Your task to perform on an android device: turn pop-ups off in chrome Image 0: 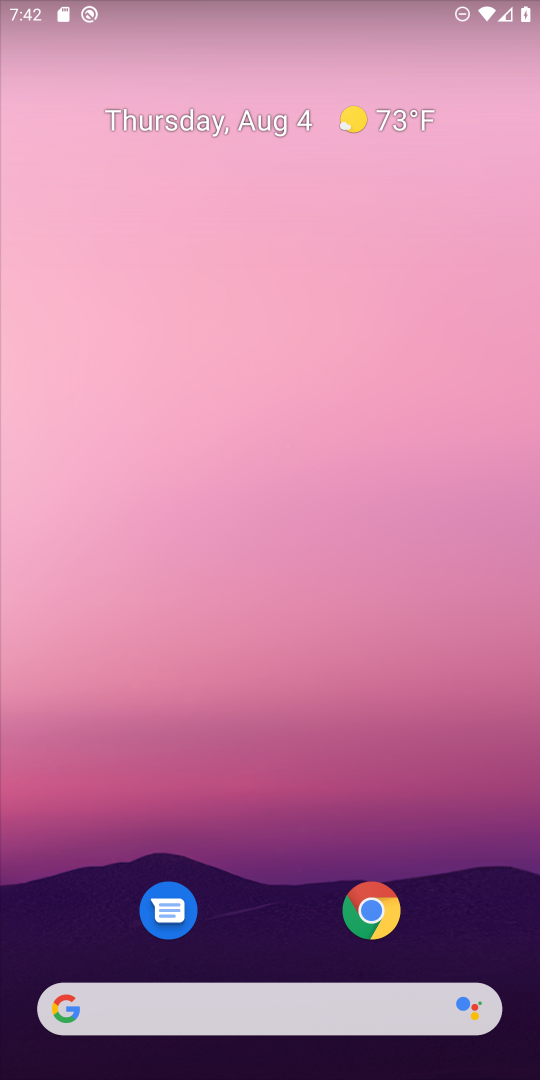
Step 0: drag from (268, 914) to (281, 238)
Your task to perform on an android device: turn pop-ups off in chrome Image 1: 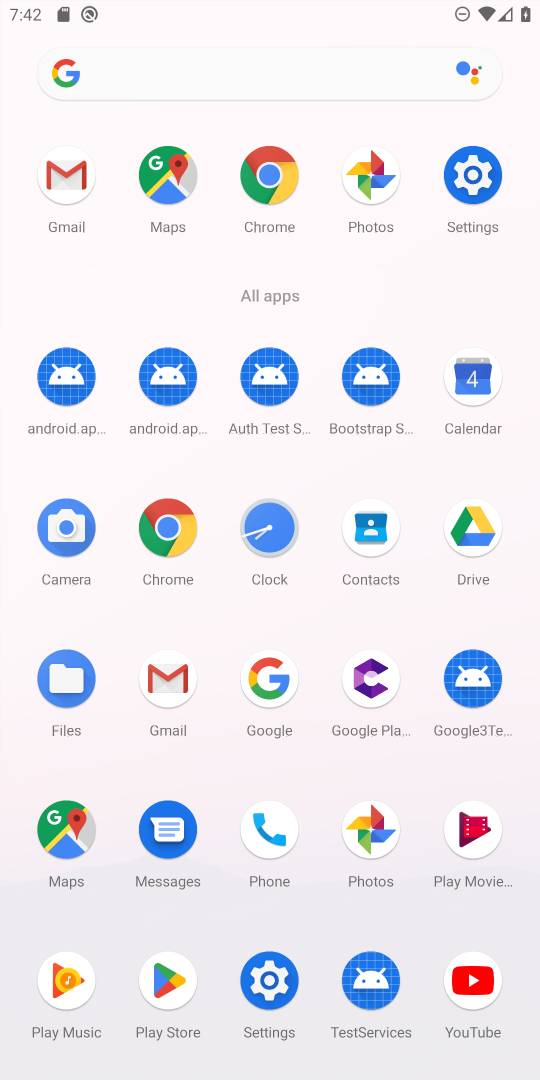
Step 1: click (177, 530)
Your task to perform on an android device: turn pop-ups off in chrome Image 2: 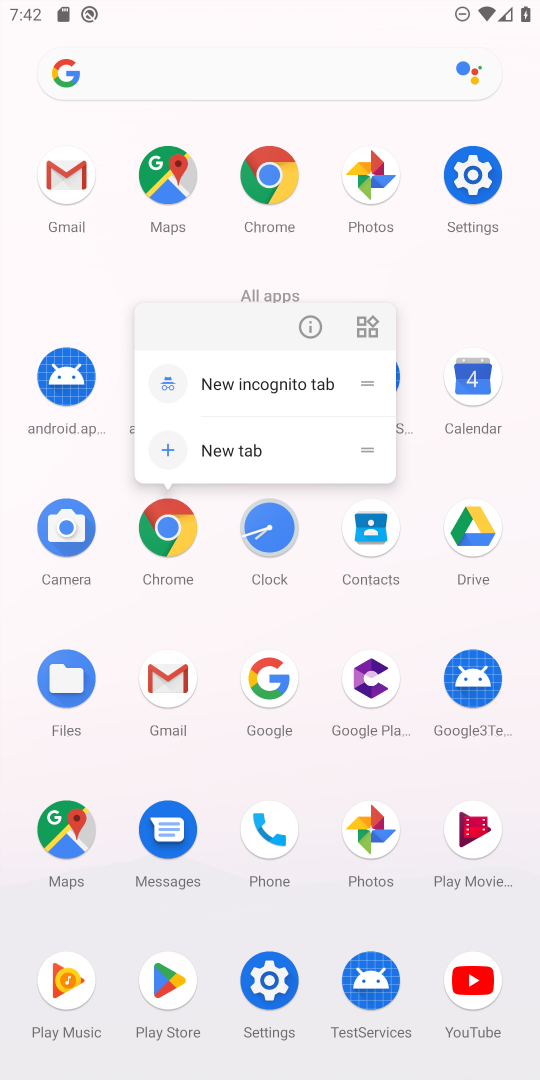
Step 2: click (177, 530)
Your task to perform on an android device: turn pop-ups off in chrome Image 3: 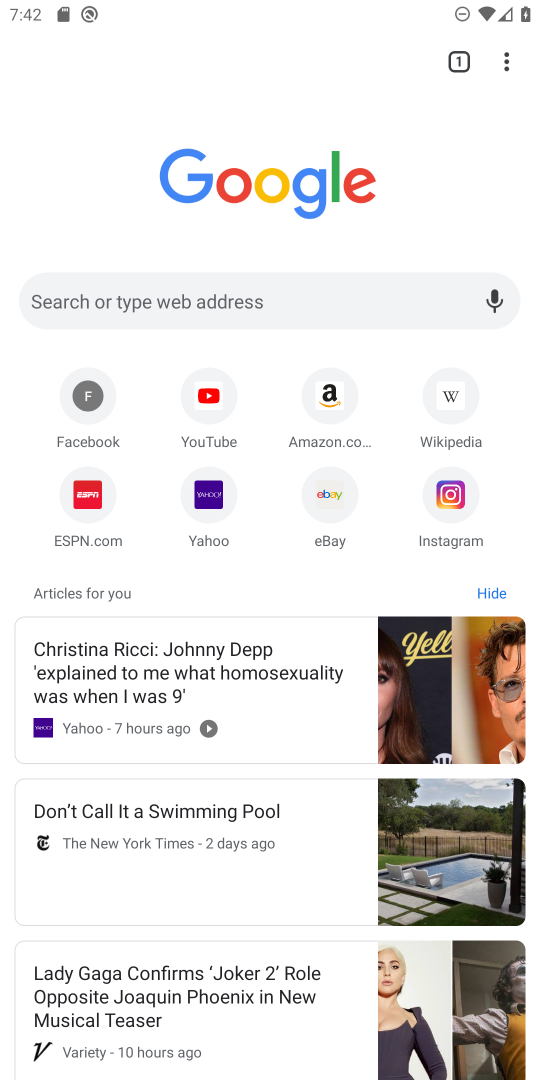
Step 3: drag from (513, 52) to (342, 504)
Your task to perform on an android device: turn pop-ups off in chrome Image 4: 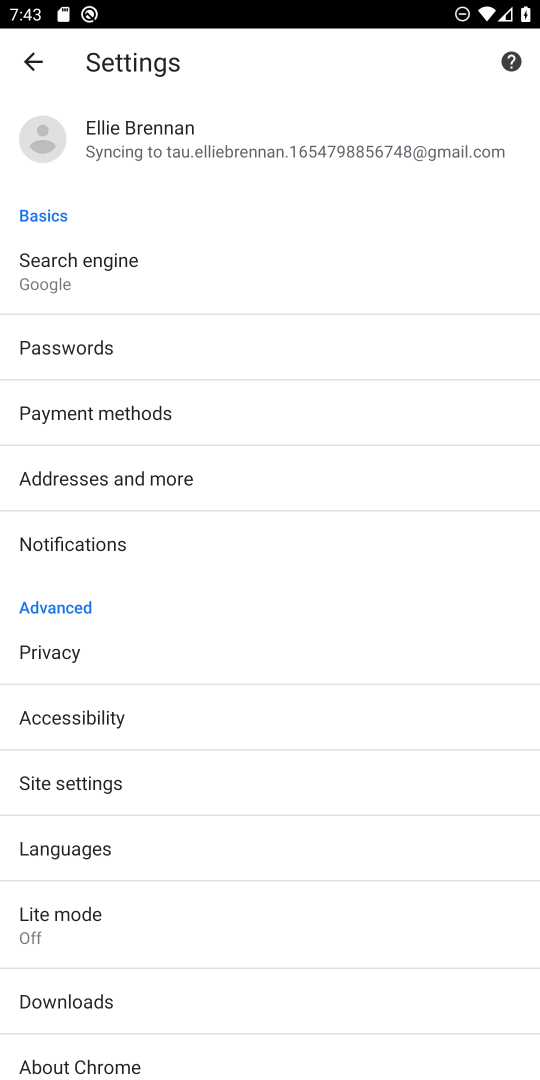
Step 4: click (138, 796)
Your task to perform on an android device: turn pop-ups off in chrome Image 5: 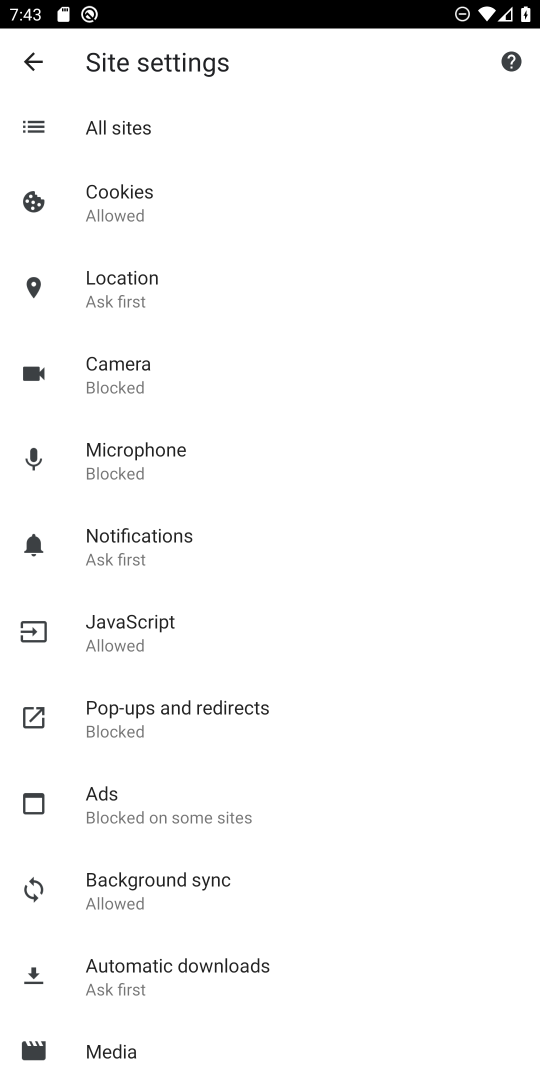
Step 5: click (179, 745)
Your task to perform on an android device: turn pop-ups off in chrome Image 6: 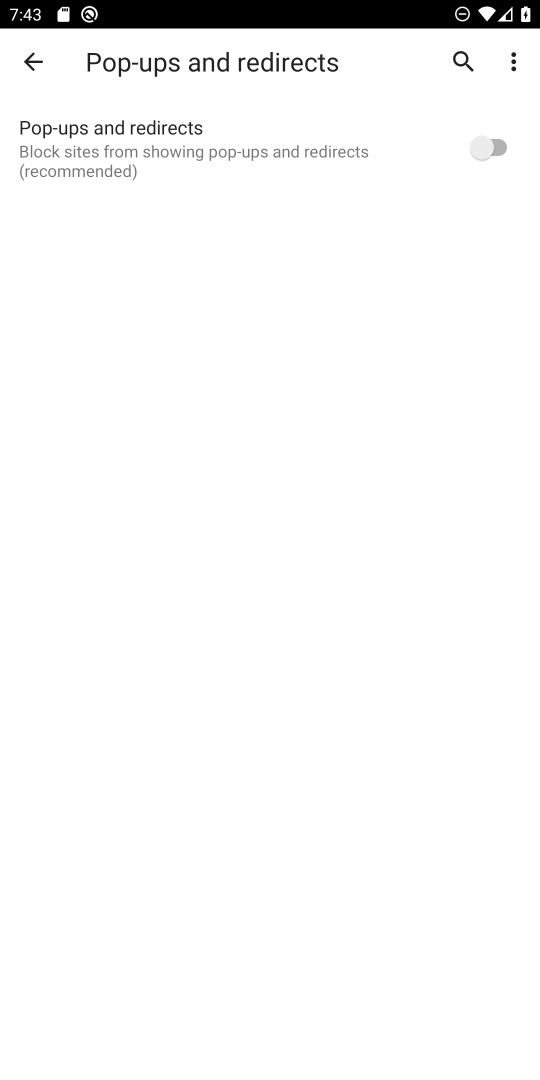
Step 6: task complete